Your task to perform on an android device: toggle notification dots Image 0: 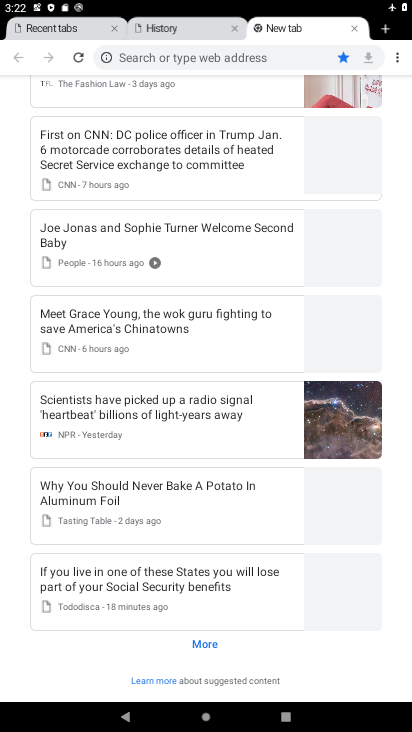
Step 0: press back button
Your task to perform on an android device: toggle notification dots Image 1: 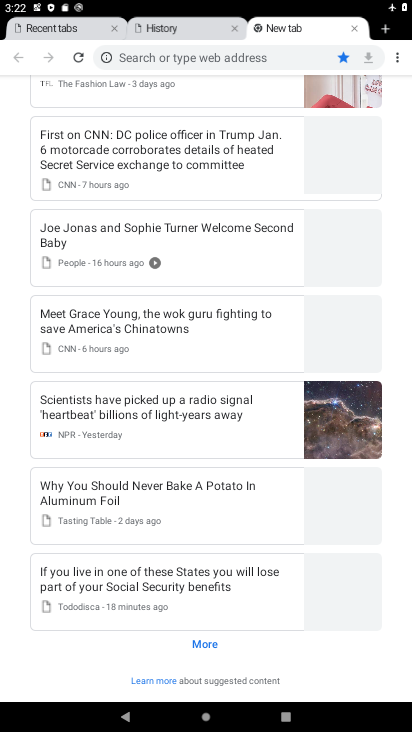
Step 1: press back button
Your task to perform on an android device: toggle notification dots Image 2: 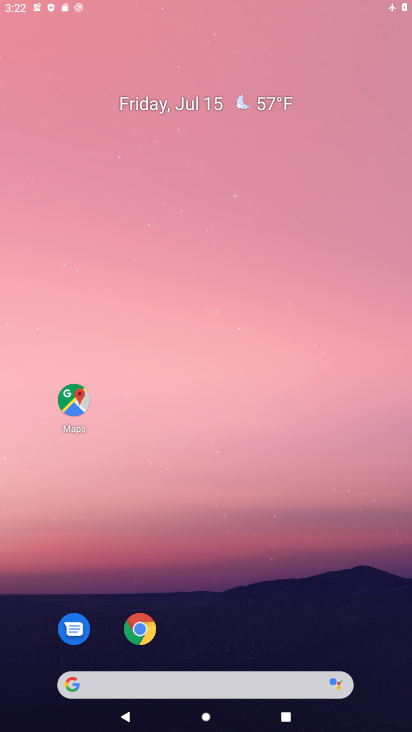
Step 2: press back button
Your task to perform on an android device: toggle notification dots Image 3: 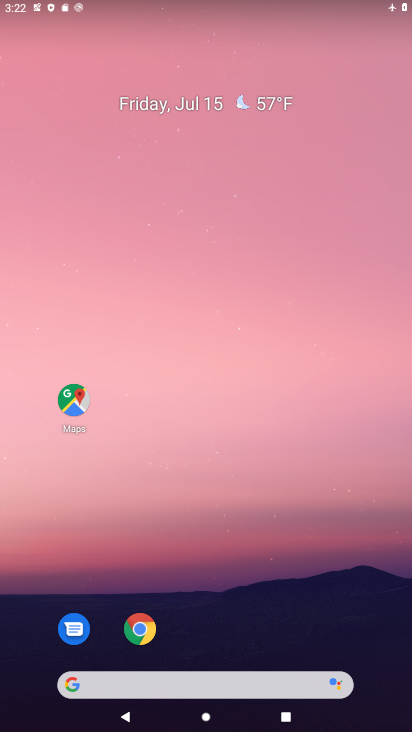
Step 3: drag from (240, 692) to (124, 143)
Your task to perform on an android device: toggle notification dots Image 4: 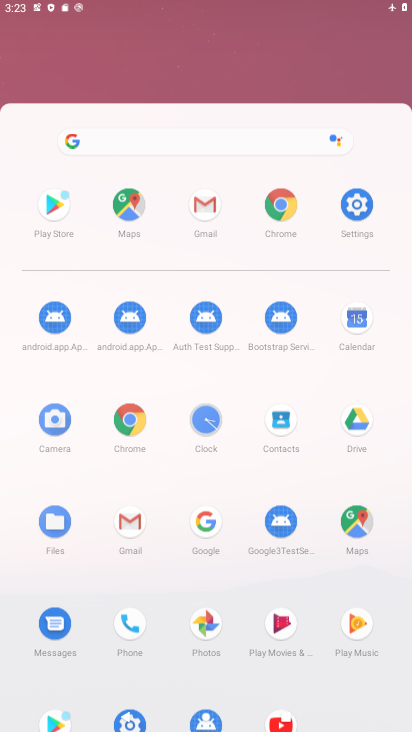
Step 4: drag from (265, 537) to (213, 141)
Your task to perform on an android device: toggle notification dots Image 5: 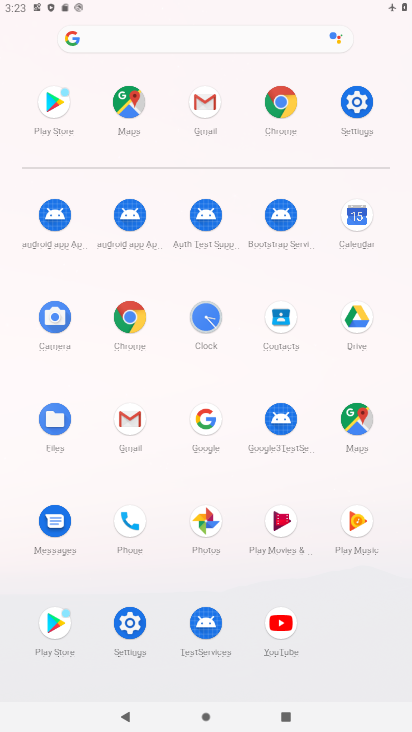
Step 5: click (169, 3)
Your task to perform on an android device: toggle notification dots Image 6: 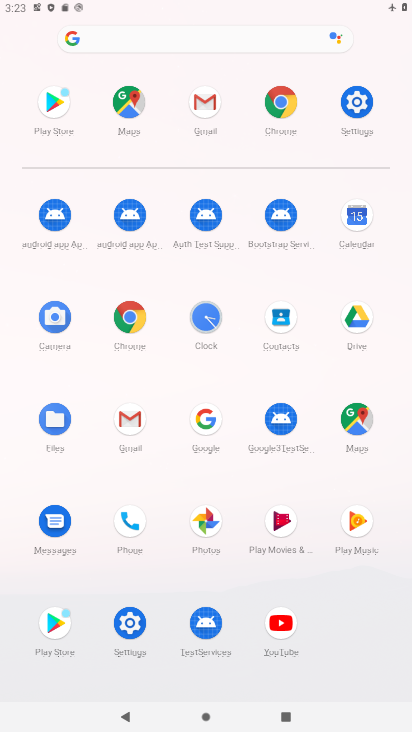
Step 6: drag from (183, 312) to (354, 93)
Your task to perform on an android device: toggle notification dots Image 7: 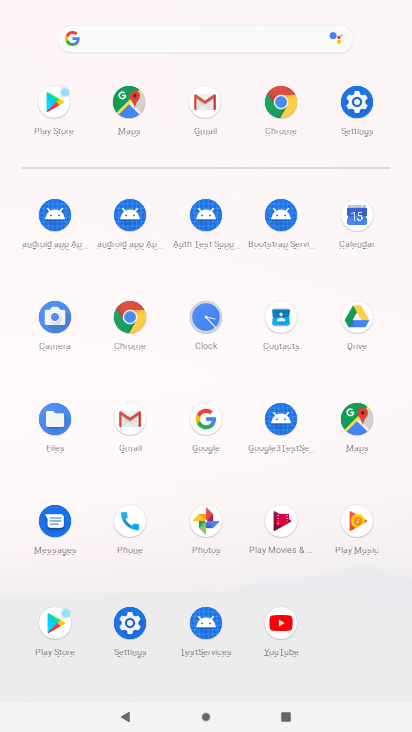
Step 7: click (354, 93)
Your task to perform on an android device: toggle notification dots Image 8: 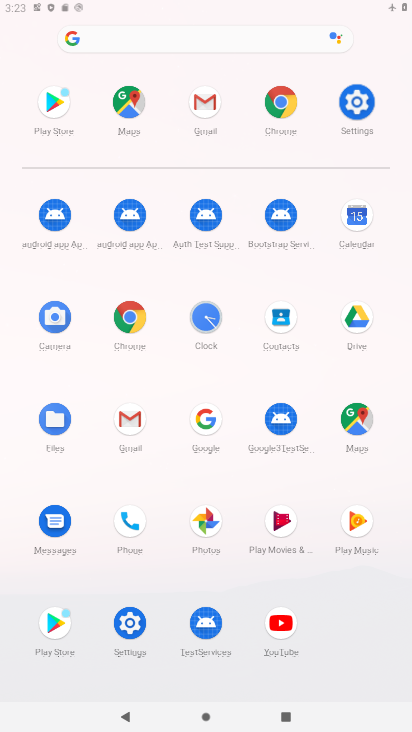
Step 8: click (333, 93)
Your task to perform on an android device: toggle notification dots Image 9: 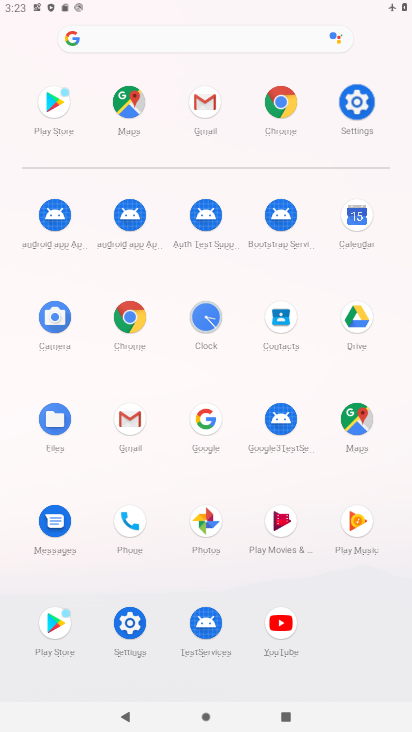
Step 9: click (333, 93)
Your task to perform on an android device: toggle notification dots Image 10: 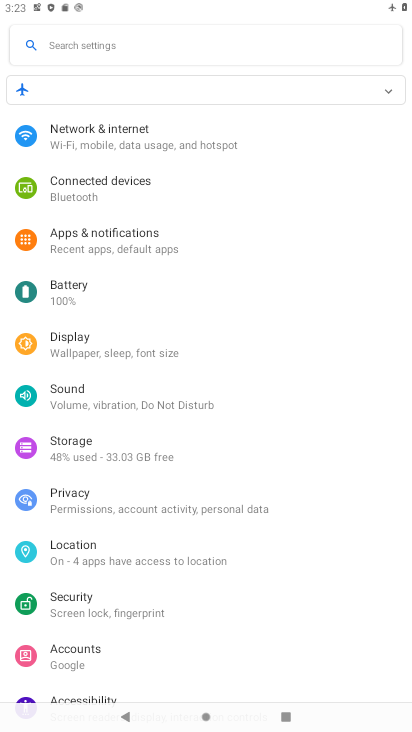
Step 10: click (104, 250)
Your task to perform on an android device: toggle notification dots Image 11: 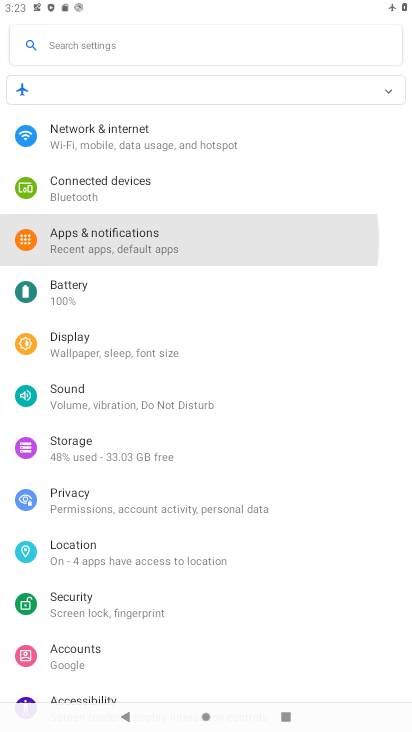
Step 11: click (117, 232)
Your task to perform on an android device: toggle notification dots Image 12: 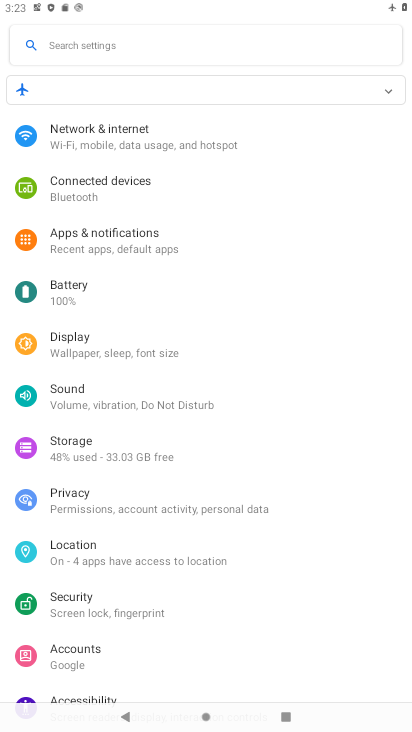
Step 12: click (122, 232)
Your task to perform on an android device: toggle notification dots Image 13: 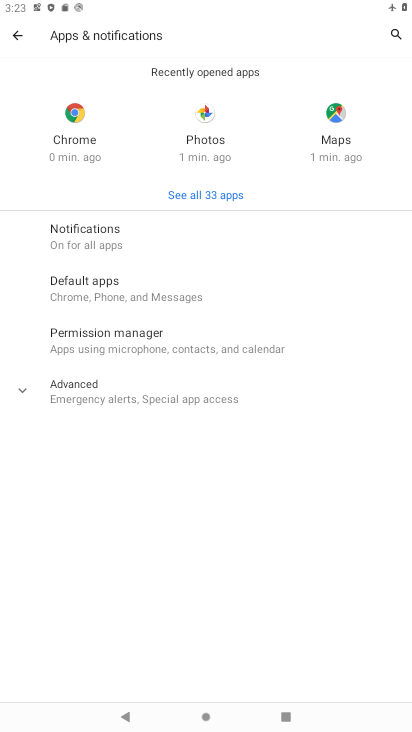
Step 13: click (99, 229)
Your task to perform on an android device: toggle notification dots Image 14: 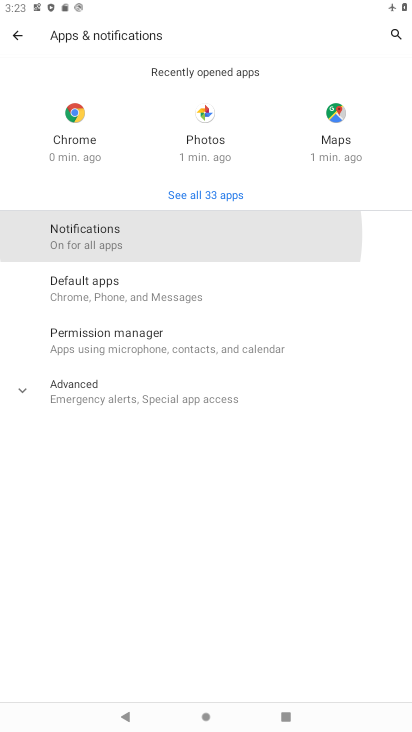
Step 14: click (98, 228)
Your task to perform on an android device: toggle notification dots Image 15: 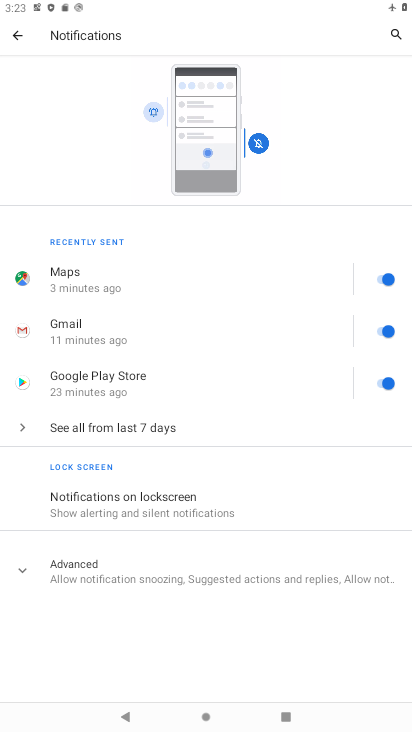
Step 15: click (85, 562)
Your task to perform on an android device: toggle notification dots Image 16: 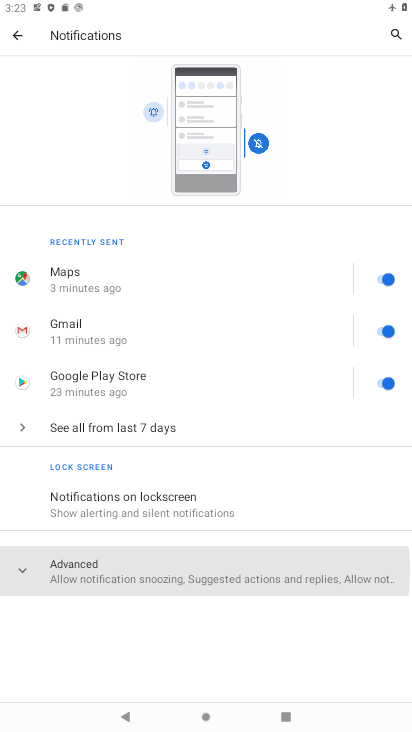
Step 16: click (93, 568)
Your task to perform on an android device: toggle notification dots Image 17: 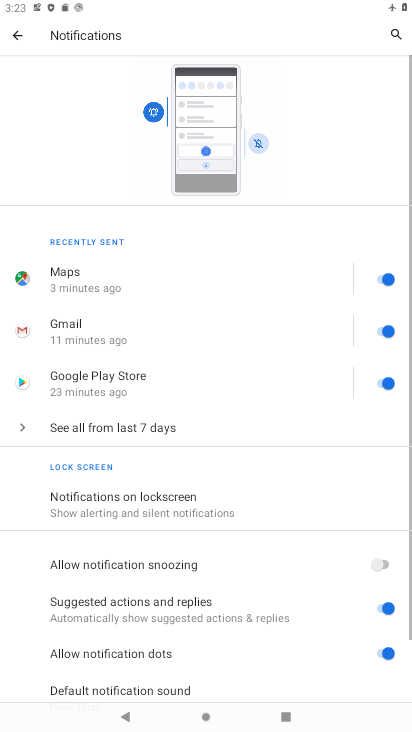
Step 17: drag from (119, 623) to (117, 292)
Your task to perform on an android device: toggle notification dots Image 18: 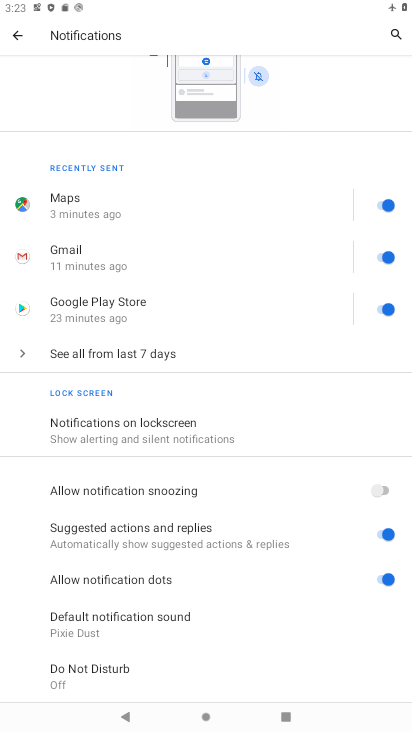
Step 18: click (391, 578)
Your task to perform on an android device: toggle notification dots Image 19: 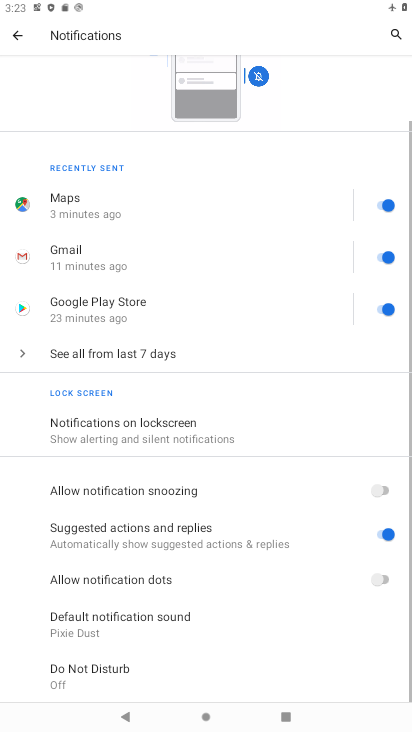
Step 19: task complete